Your task to perform on an android device: Search for seafood restaurants on Google Maps Image 0: 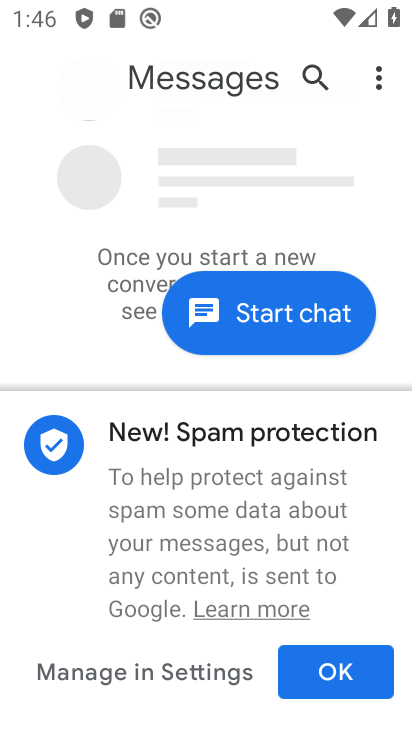
Step 0: press home button
Your task to perform on an android device: Search for seafood restaurants on Google Maps Image 1: 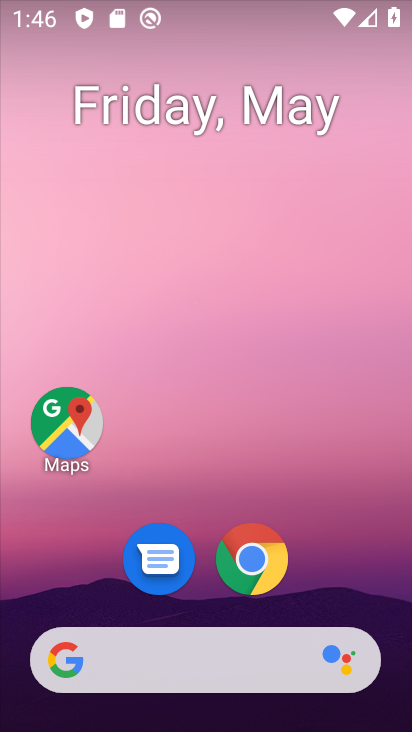
Step 1: click (68, 416)
Your task to perform on an android device: Search for seafood restaurants on Google Maps Image 2: 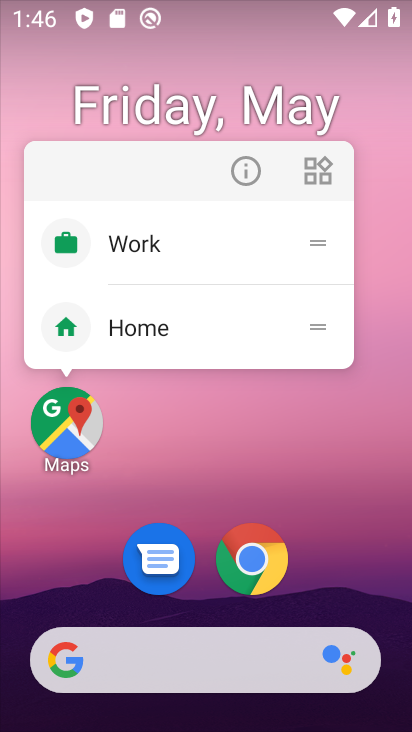
Step 2: click (79, 439)
Your task to perform on an android device: Search for seafood restaurants on Google Maps Image 3: 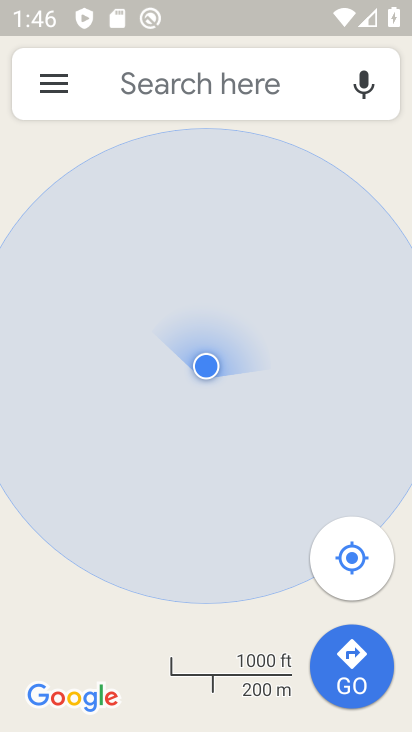
Step 3: click (249, 77)
Your task to perform on an android device: Search for seafood restaurants on Google Maps Image 4: 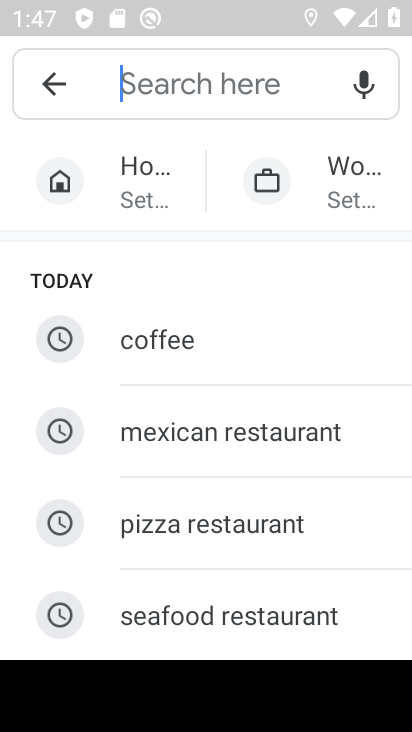
Step 4: click (199, 618)
Your task to perform on an android device: Search for seafood restaurants on Google Maps Image 5: 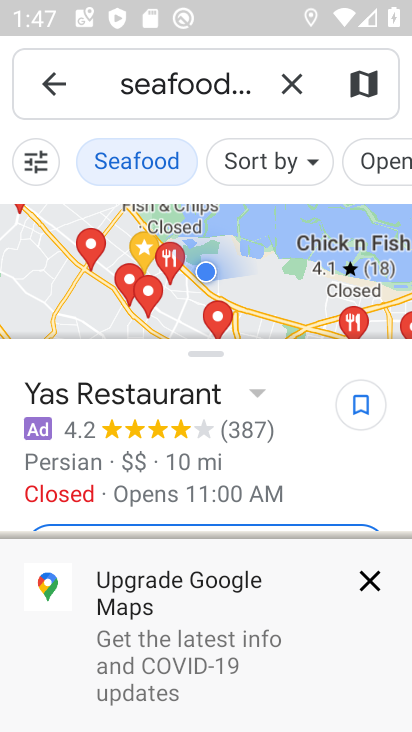
Step 5: task complete